Your task to perform on an android device: manage bookmarks in the chrome app Image 0: 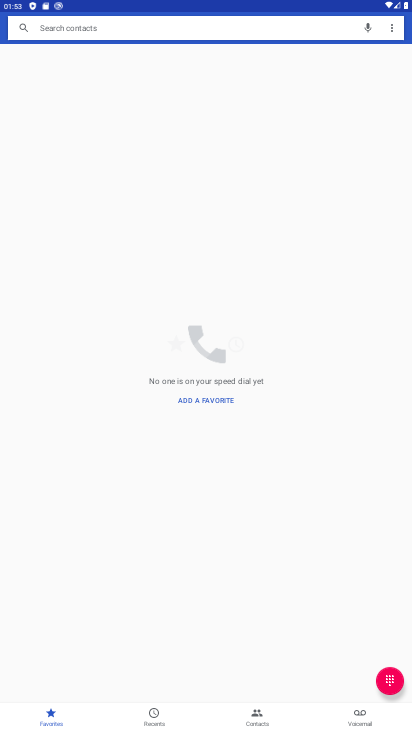
Step 0: press home button
Your task to perform on an android device: manage bookmarks in the chrome app Image 1: 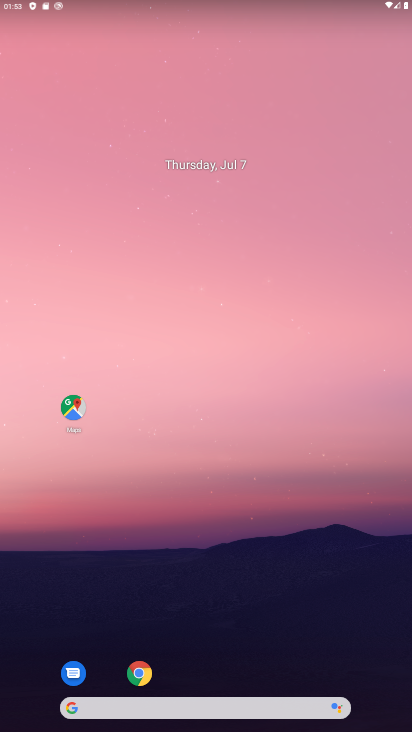
Step 1: click (146, 672)
Your task to perform on an android device: manage bookmarks in the chrome app Image 2: 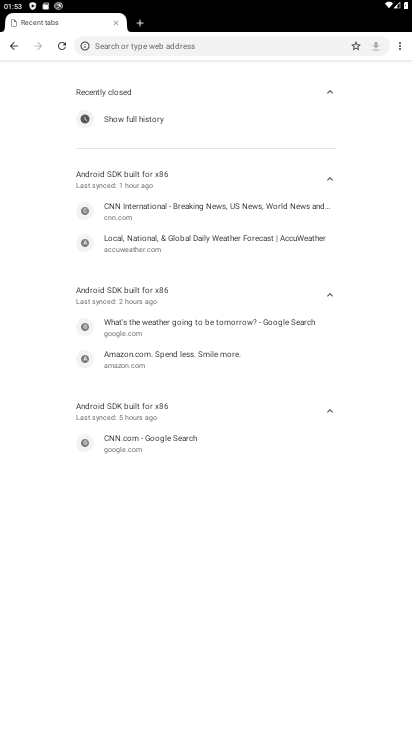
Step 2: click (393, 43)
Your task to perform on an android device: manage bookmarks in the chrome app Image 3: 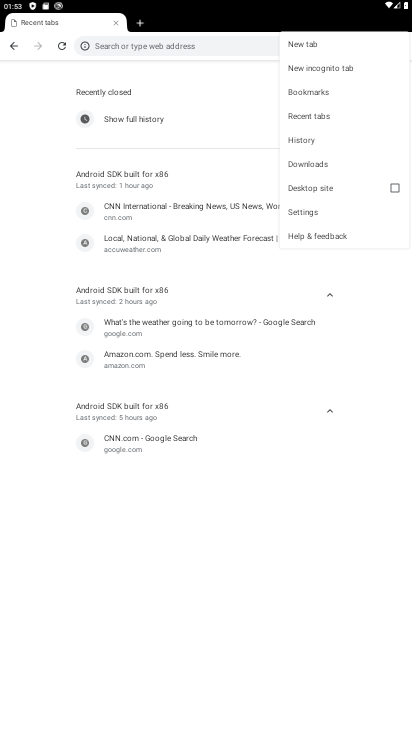
Step 3: click (334, 88)
Your task to perform on an android device: manage bookmarks in the chrome app Image 4: 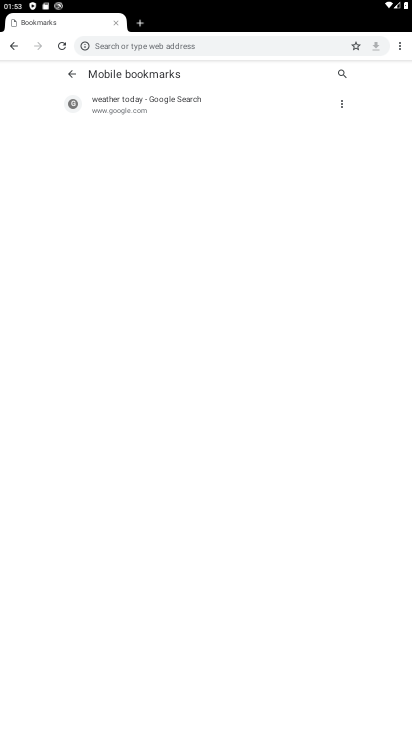
Step 4: click (338, 100)
Your task to perform on an android device: manage bookmarks in the chrome app Image 5: 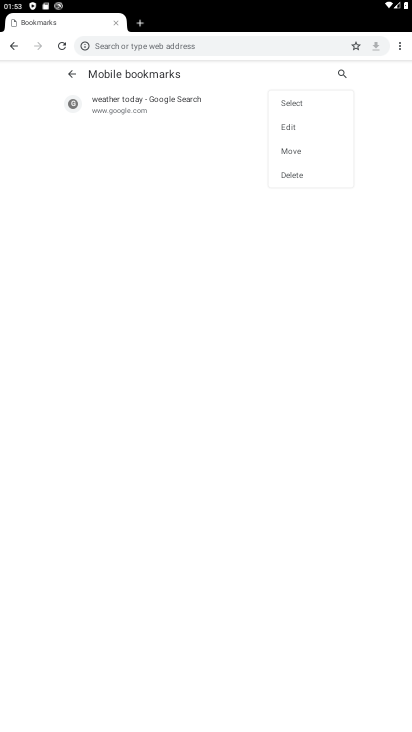
Step 5: click (301, 172)
Your task to perform on an android device: manage bookmarks in the chrome app Image 6: 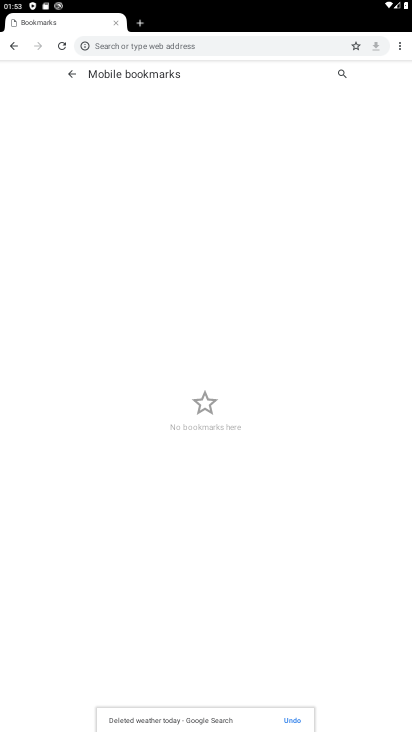
Step 6: task complete